Your task to perform on an android device: read, delete, or share a saved page in the chrome app Image 0: 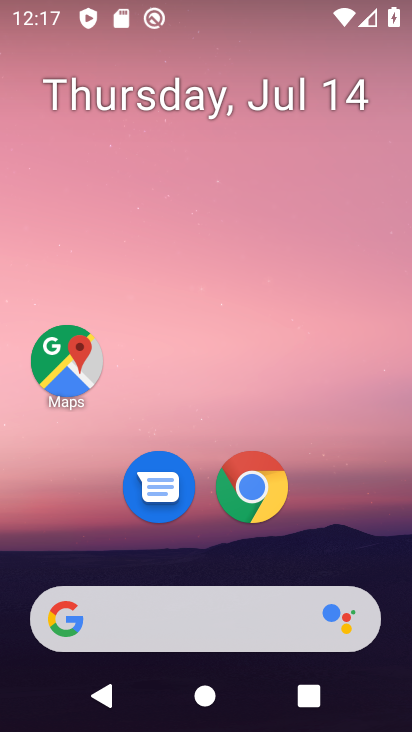
Step 0: drag from (182, 596) to (142, 169)
Your task to perform on an android device: read, delete, or share a saved page in the chrome app Image 1: 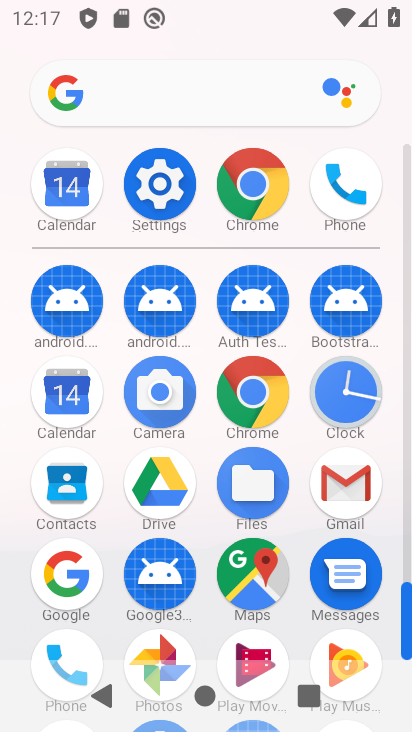
Step 1: click (254, 201)
Your task to perform on an android device: read, delete, or share a saved page in the chrome app Image 2: 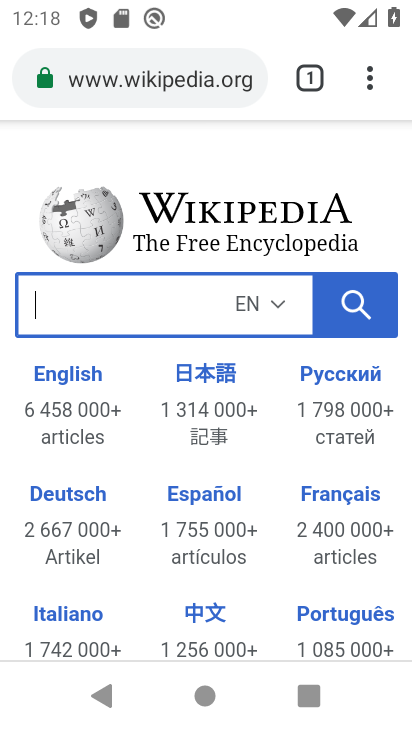
Step 2: click (360, 81)
Your task to perform on an android device: read, delete, or share a saved page in the chrome app Image 3: 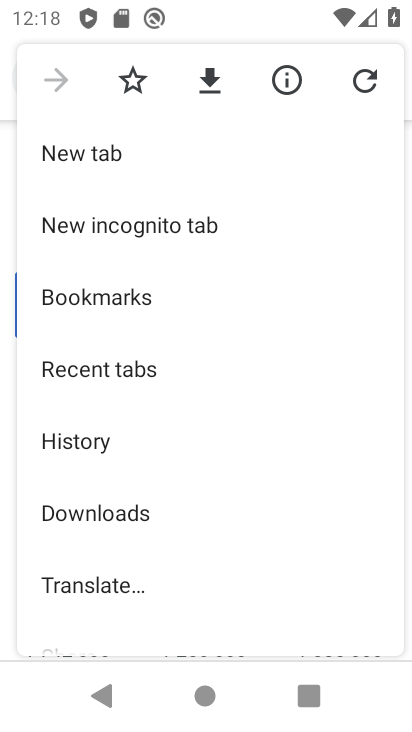
Step 3: click (127, 515)
Your task to perform on an android device: read, delete, or share a saved page in the chrome app Image 4: 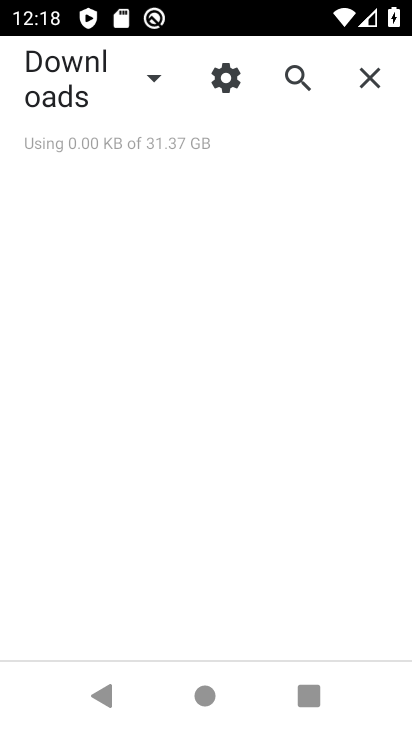
Step 4: click (133, 81)
Your task to perform on an android device: read, delete, or share a saved page in the chrome app Image 5: 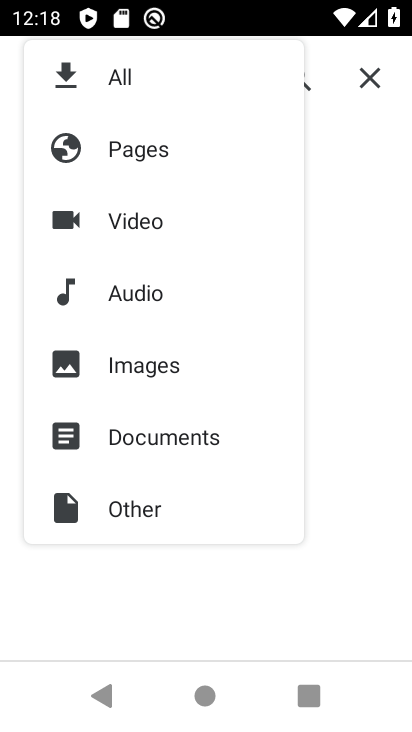
Step 5: click (162, 148)
Your task to perform on an android device: read, delete, or share a saved page in the chrome app Image 6: 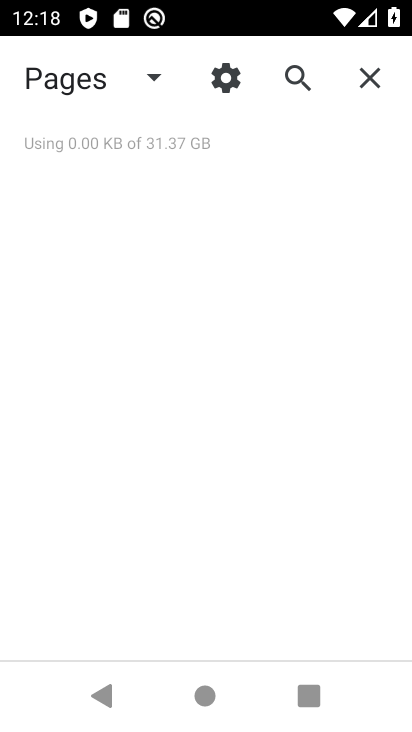
Step 6: task complete